Your task to perform on an android device: Open wifi settings Image 0: 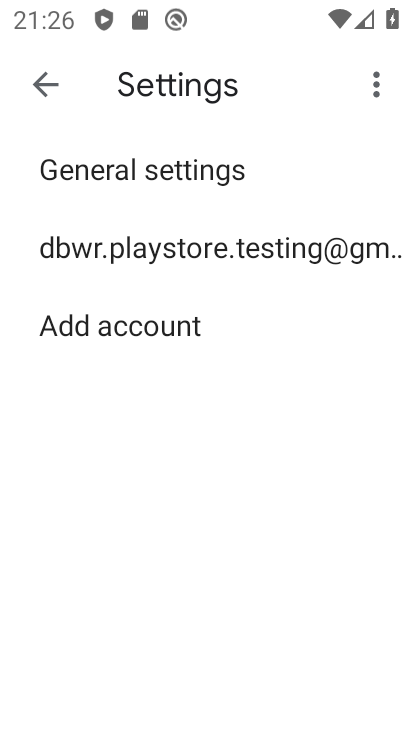
Step 0: click (44, 78)
Your task to perform on an android device: Open wifi settings Image 1: 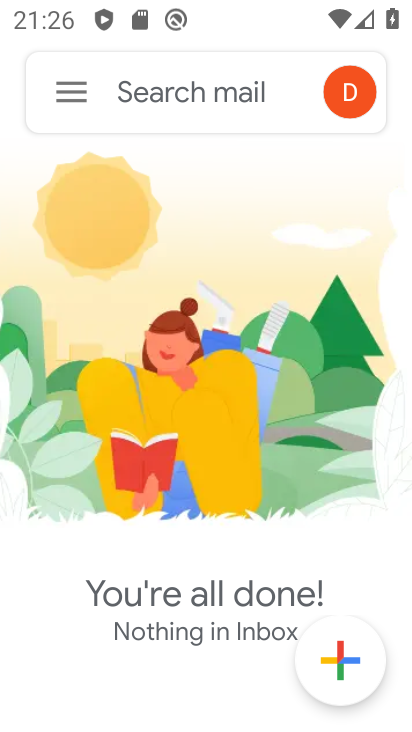
Step 1: press home button
Your task to perform on an android device: Open wifi settings Image 2: 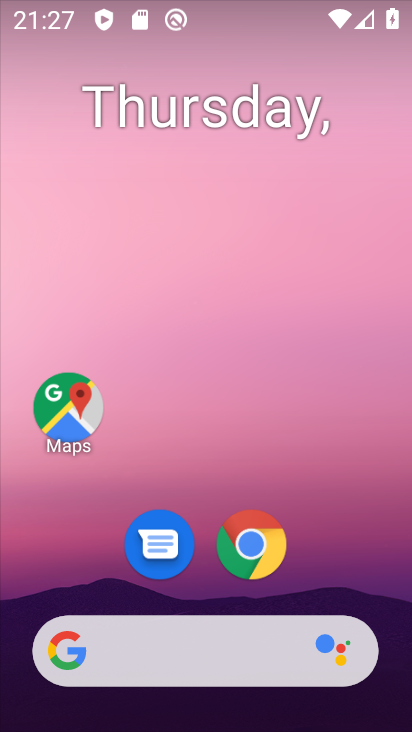
Step 2: drag from (215, 711) to (218, 201)
Your task to perform on an android device: Open wifi settings Image 3: 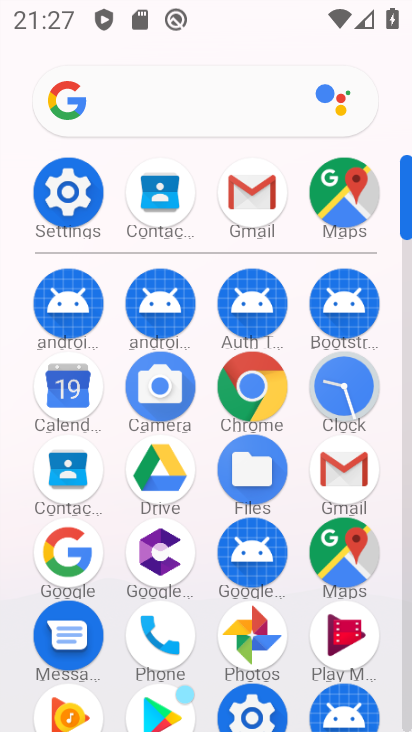
Step 3: click (60, 201)
Your task to perform on an android device: Open wifi settings Image 4: 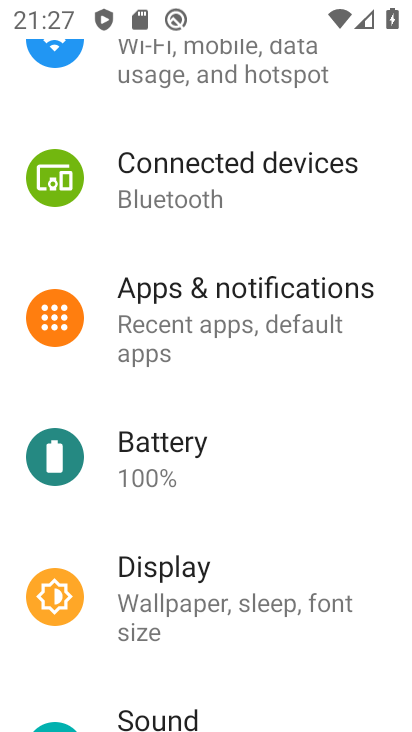
Step 4: drag from (230, 95) to (189, 488)
Your task to perform on an android device: Open wifi settings Image 5: 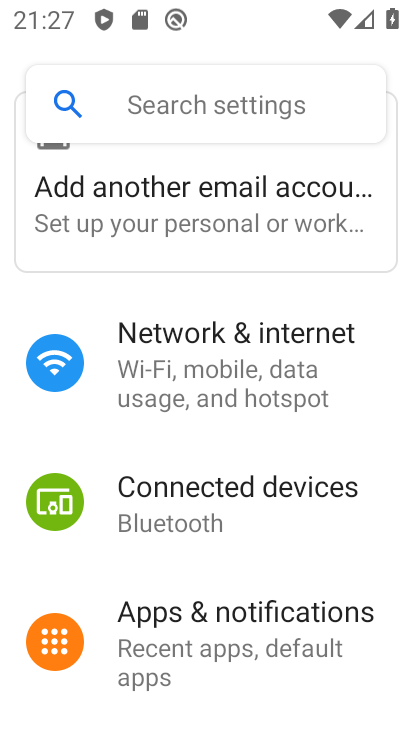
Step 5: click (220, 369)
Your task to perform on an android device: Open wifi settings Image 6: 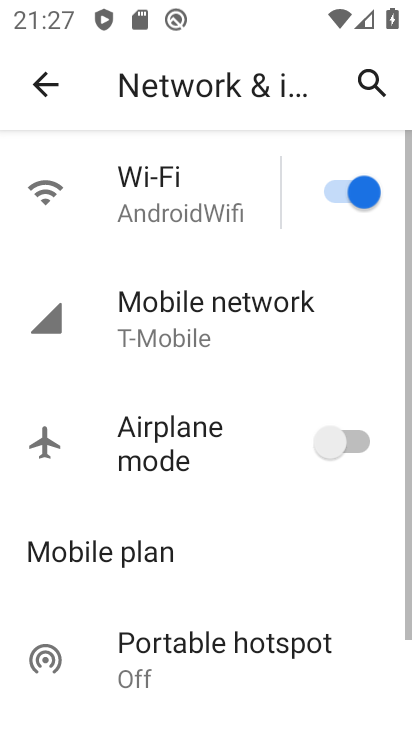
Step 6: click (124, 181)
Your task to perform on an android device: Open wifi settings Image 7: 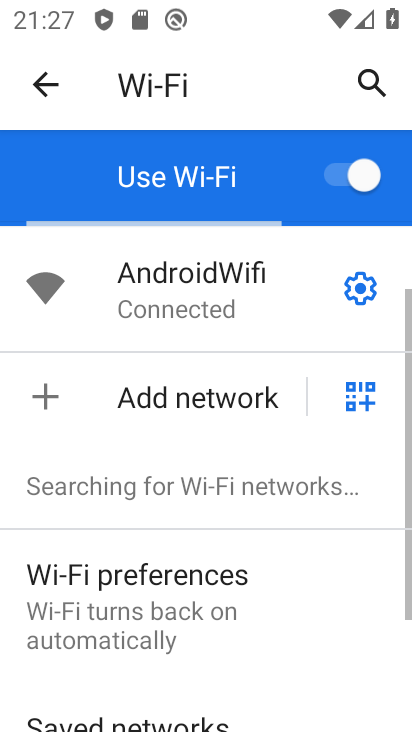
Step 7: click (366, 298)
Your task to perform on an android device: Open wifi settings Image 8: 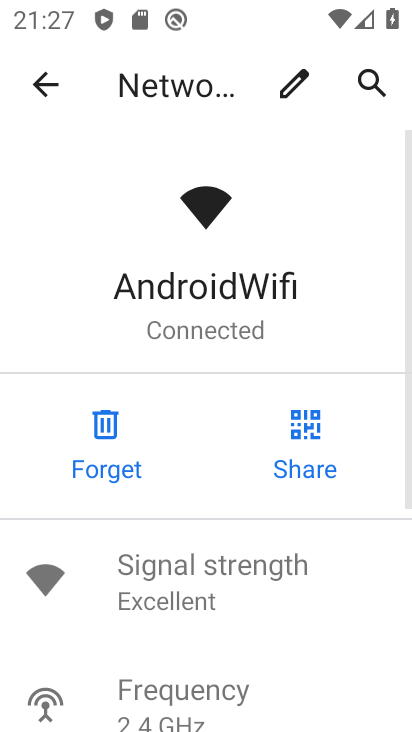
Step 8: task complete